Your task to perform on an android device: clear all cookies in the chrome app Image 0: 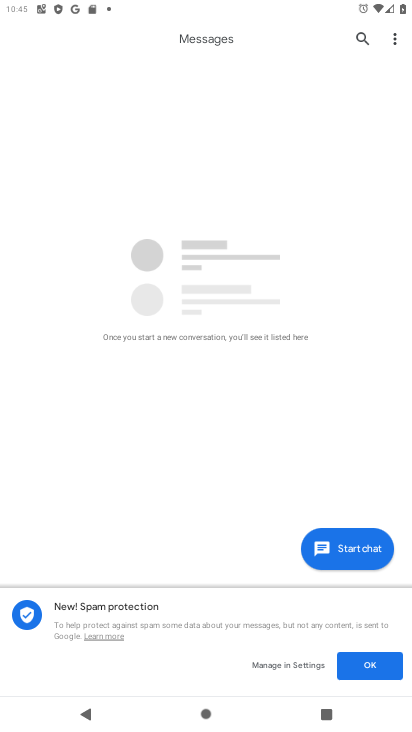
Step 0: press home button
Your task to perform on an android device: clear all cookies in the chrome app Image 1: 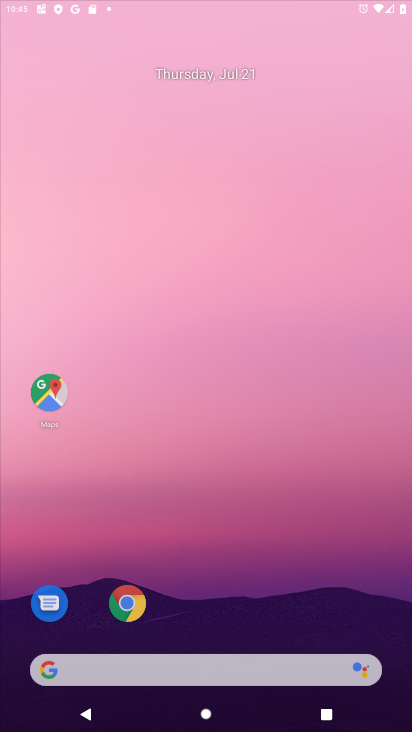
Step 1: drag from (397, 660) to (262, 14)
Your task to perform on an android device: clear all cookies in the chrome app Image 2: 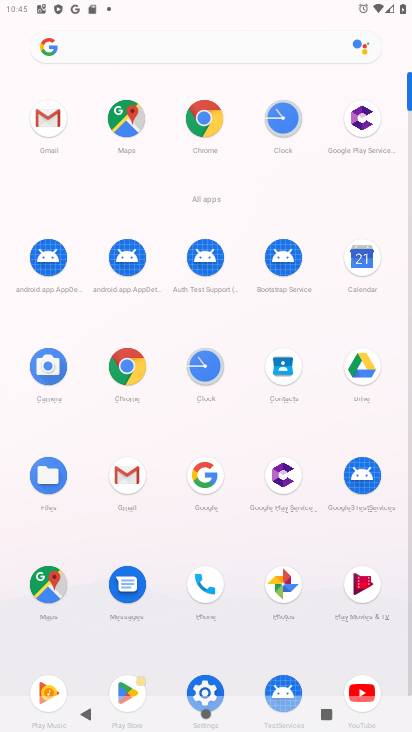
Step 2: click (213, 130)
Your task to perform on an android device: clear all cookies in the chrome app Image 3: 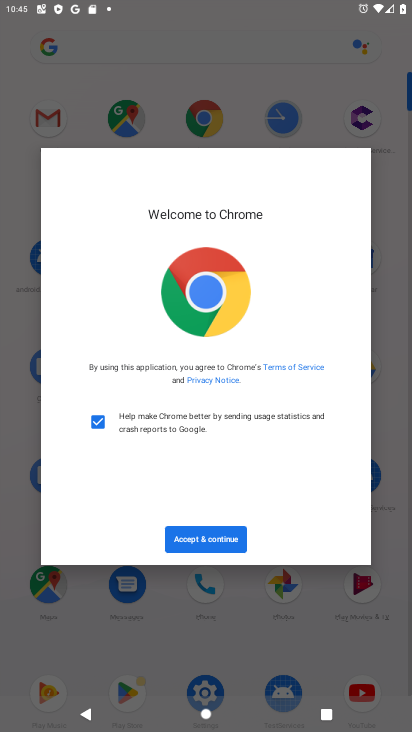
Step 3: click (224, 537)
Your task to perform on an android device: clear all cookies in the chrome app Image 4: 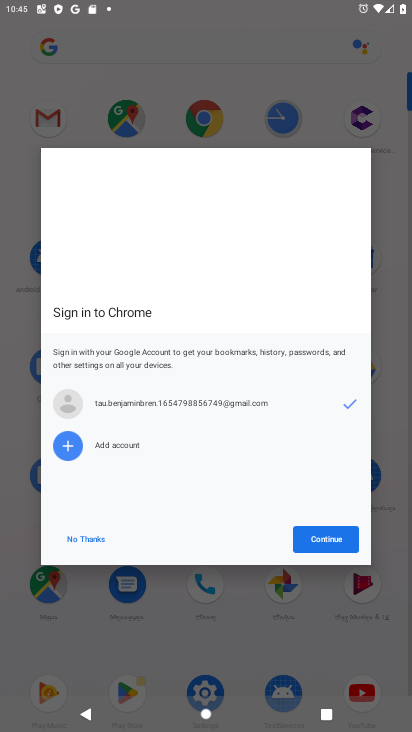
Step 4: click (318, 537)
Your task to perform on an android device: clear all cookies in the chrome app Image 5: 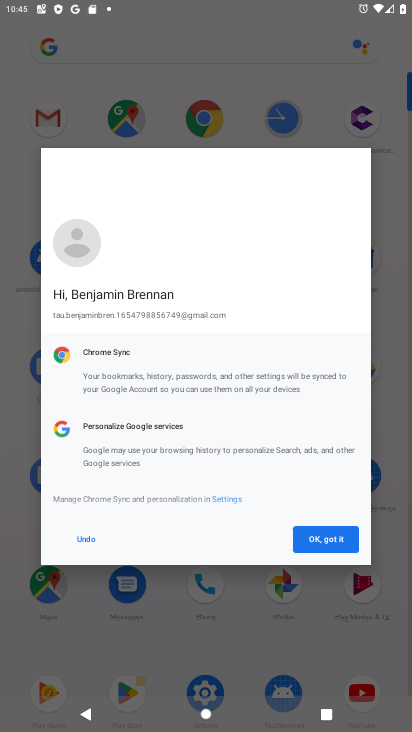
Step 5: click (318, 537)
Your task to perform on an android device: clear all cookies in the chrome app Image 6: 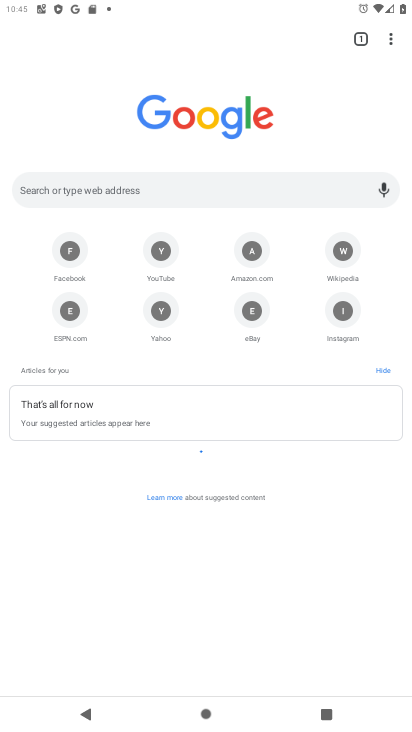
Step 6: click (392, 37)
Your task to perform on an android device: clear all cookies in the chrome app Image 7: 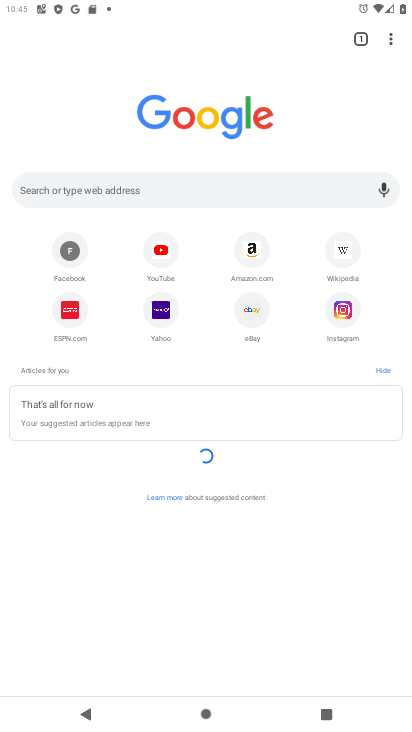
Step 7: click (392, 37)
Your task to perform on an android device: clear all cookies in the chrome app Image 8: 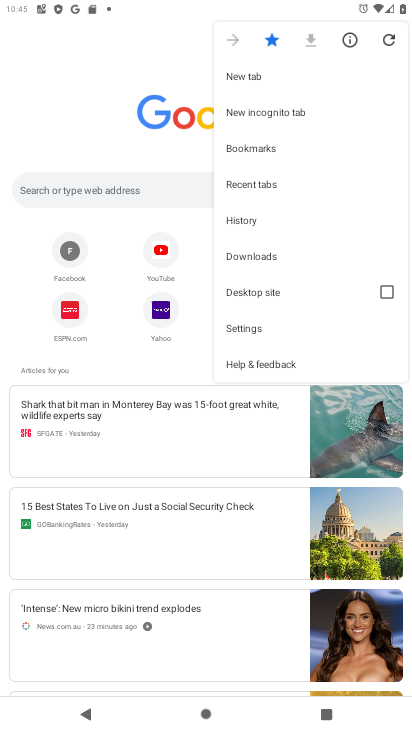
Step 8: click (257, 219)
Your task to perform on an android device: clear all cookies in the chrome app Image 9: 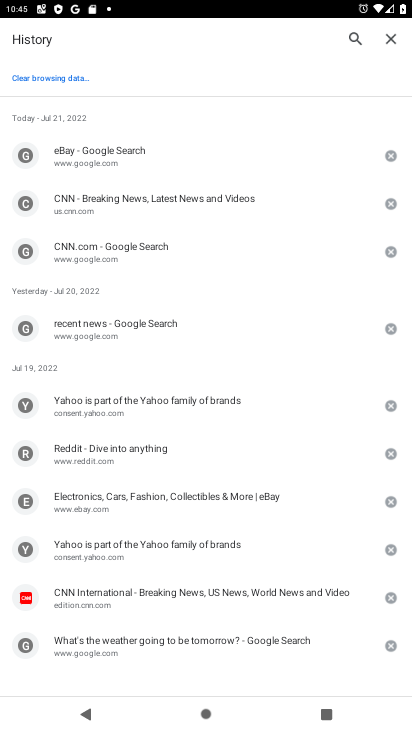
Step 9: click (41, 77)
Your task to perform on an android device: clear all cookies in the chrome app Image 10: 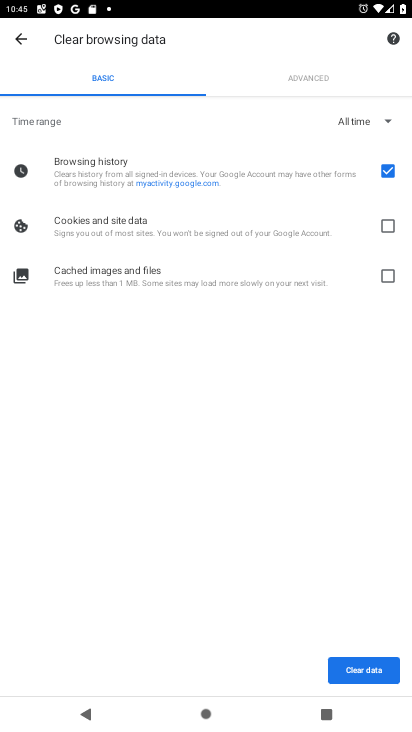
Step 10: click (334, 220)
Your task to perform on an android device: clear all cookies in the chrome app Image 11: 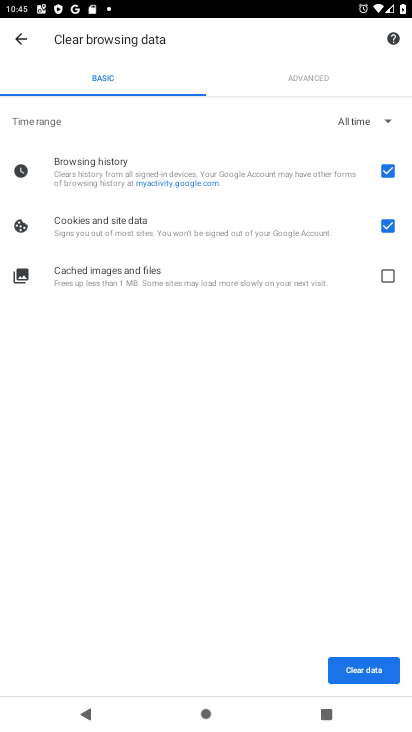
Step 11: click (344, 678)
Your task to perform on an android device: clear all cookies in the chrome app Image 12: 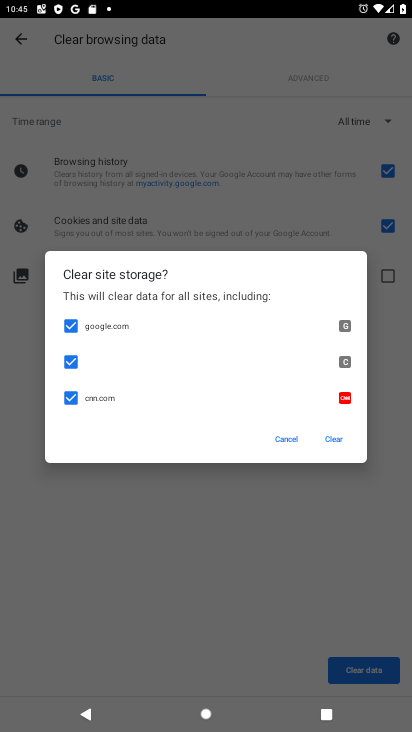
Step 12: click (331, 442)
Your task to perform on an android device: clear all cookies in the chrome app Image 13: 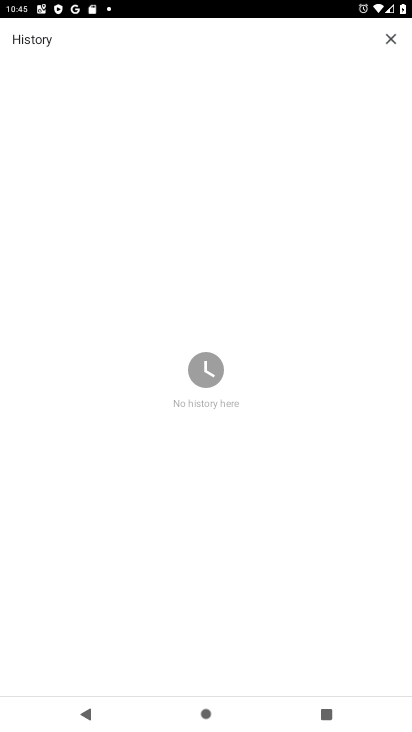
Step 13: task complete